Your task to perform on an android device: Go to display settings Image 0: 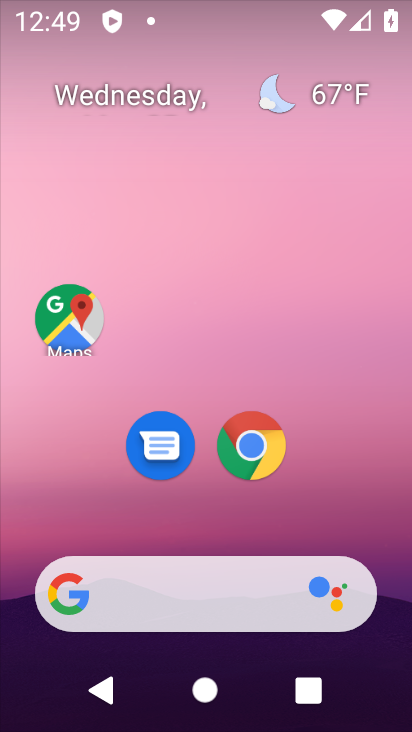
Step 0: drag from (338, 530) to (292, 114)
Your task to perform on an android device: Go to display settings Image 1: 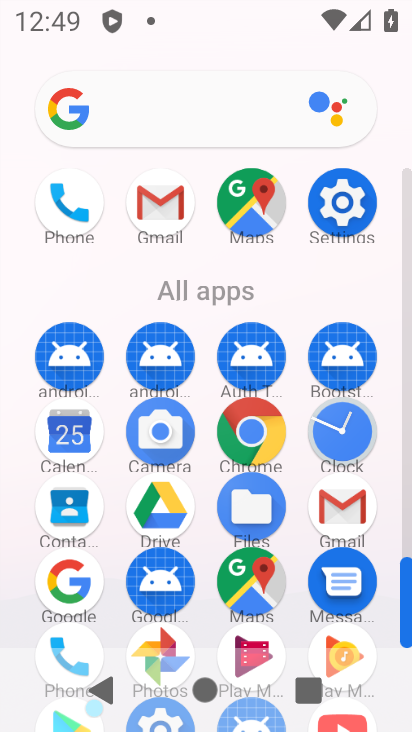
Step 1: click (356, 222)
Your task to perform on an android device: Go to display settings Image 2: 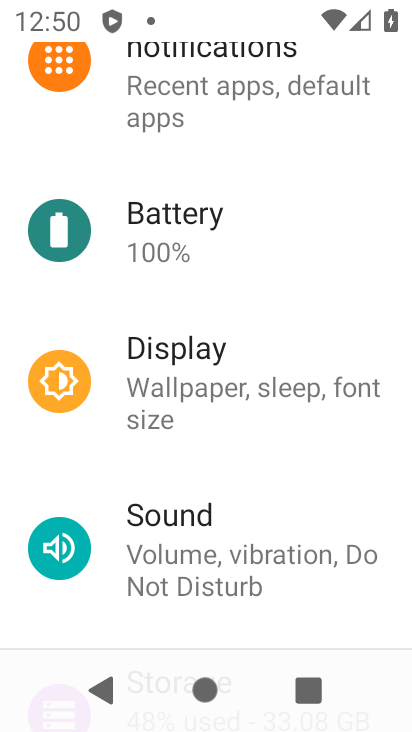
Step 2: click (256, 354)
Your task to perform on an android device: Go to display settings Image 3: 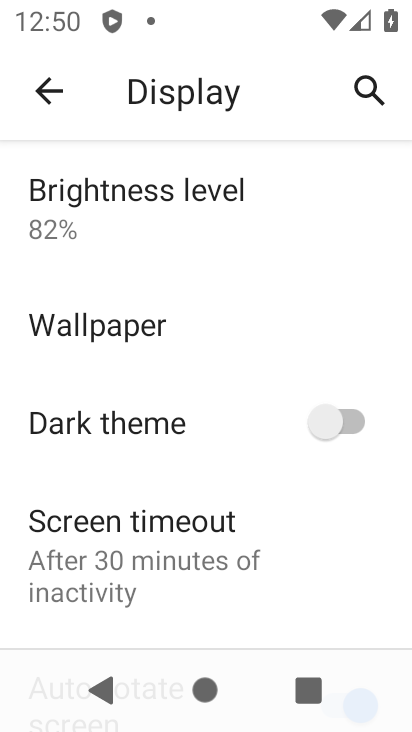
Step 3: task complete